Your task to perform on an android device: set the stopwatch Image 0: 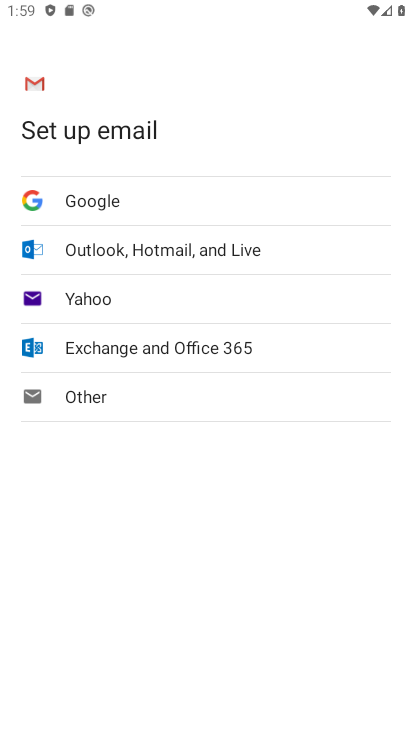
Step 0: press home button
Your task to perform on an android device: set the stopwatch Image 1: 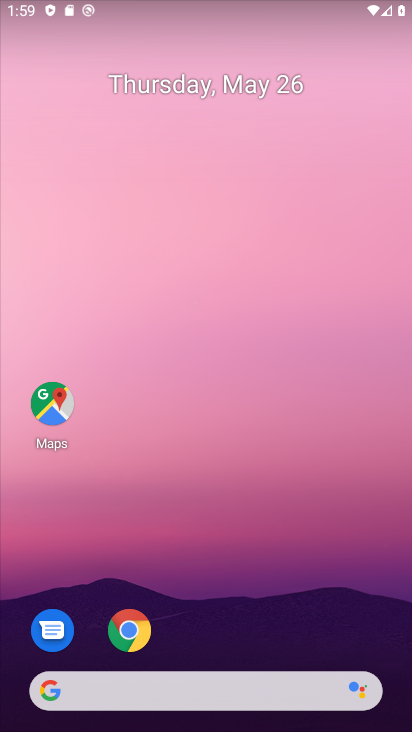
Step 1: drag from (200, 505) to (243, 26)
Your task to perform on an android device: set the stopwatch Image 2: 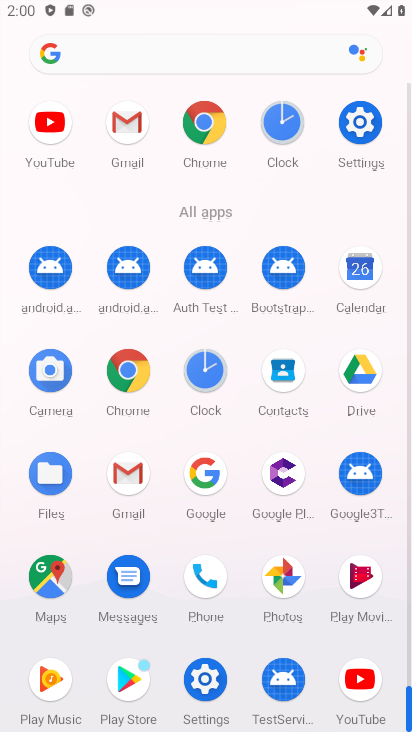
Step 2: click (200, 382)
Your task to perform on an android device: set the stopwatch Image 3: 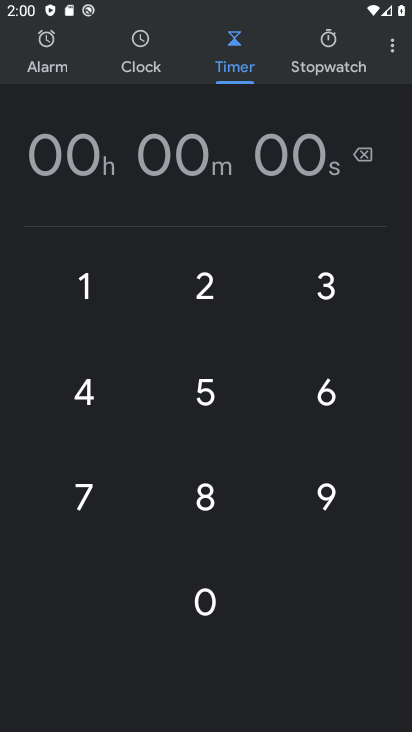
Step 3: click (342, 43)
Your task to perform on an android device: set the stopwatch Image 4: 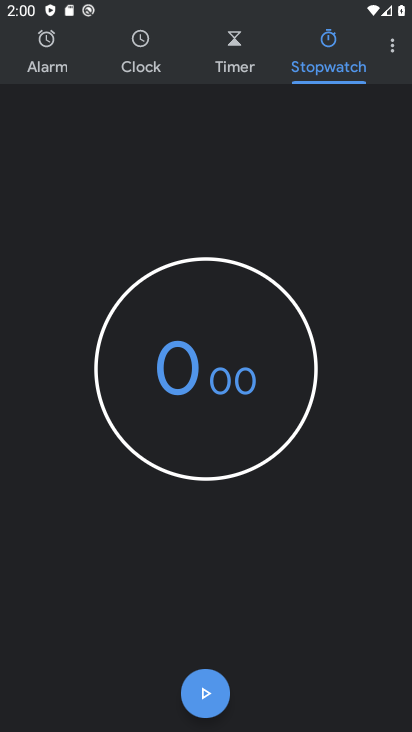
Step 4: click (216, 685)
Your task to perform on an android device: set the stopwatch Image 5: 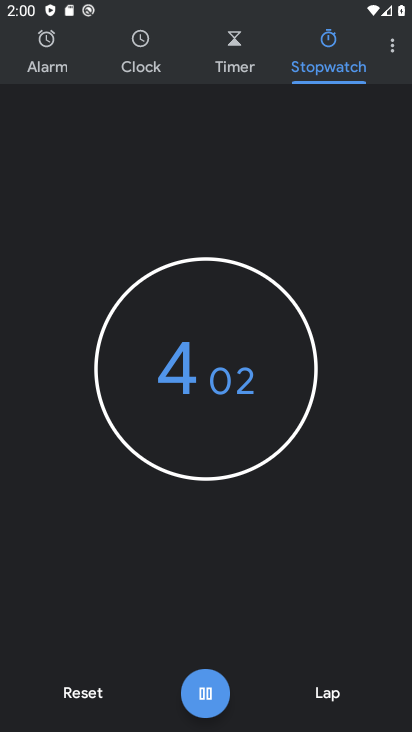
Step 5: task complete